Your task to perform on an android device: turn off location Image 0: 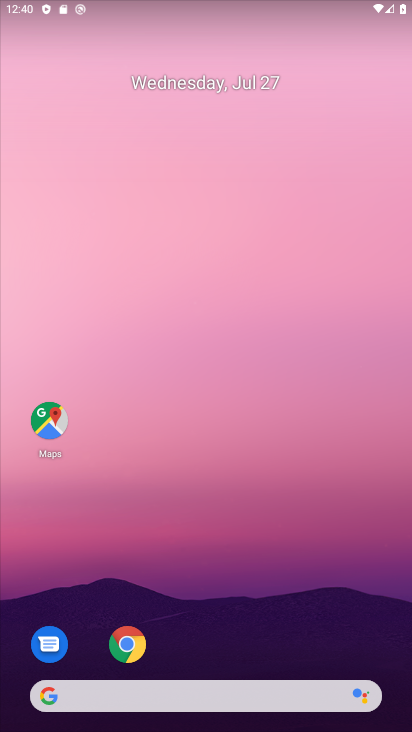
Step 0: drag from (288, 612) to (300, 0)
Your task to perform on an android device: turn off location Image 1: 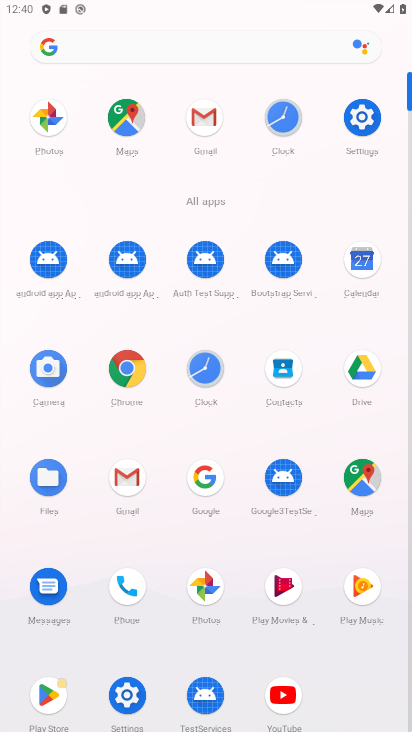
Step 1: click (358, 135)
Your task to perform on an android device: turn off location Image 2: 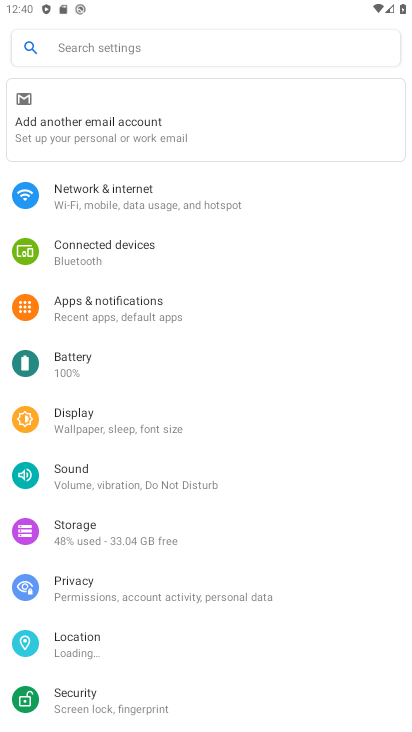
Step 2: click (53, 636)
Your task to perform on an android device: turn off location Image 3: 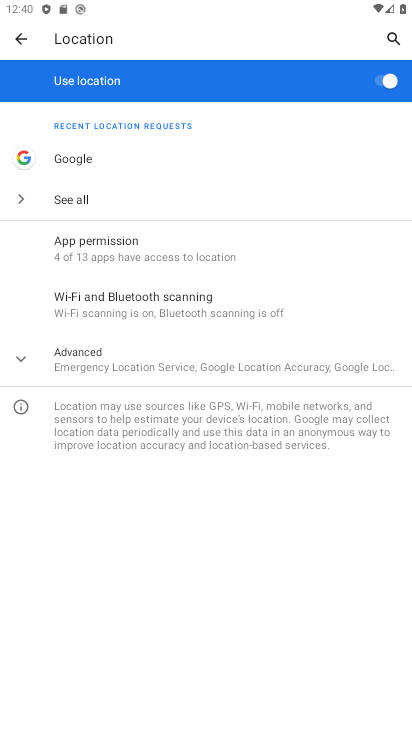
Step 3: click (387, 82)
Your task to perform on an android device: turn off location Image 4: 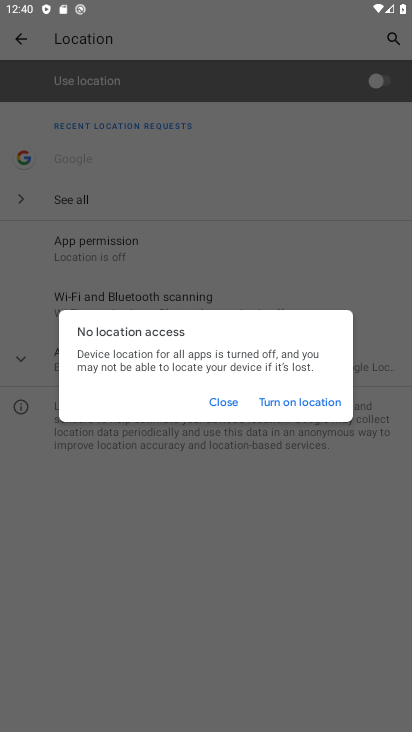
Step 4: task complete